Your task to perform on an android device: Search for pizza restaurants on Maps Image 0: 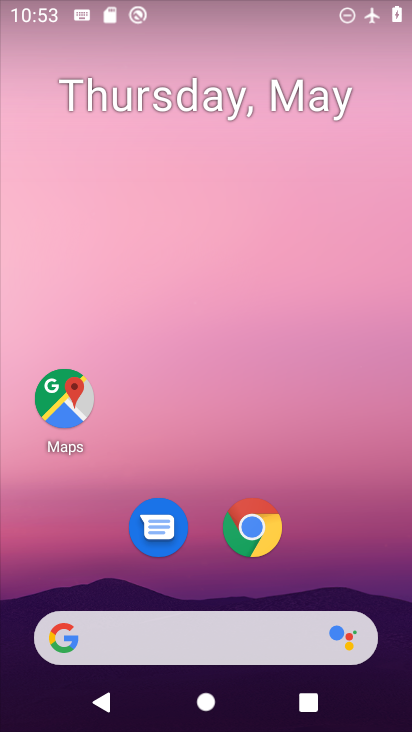
Step 0: click (62, 398)
Your task to perform on an android device: Search for pizza restaurants on Maps Image 1: 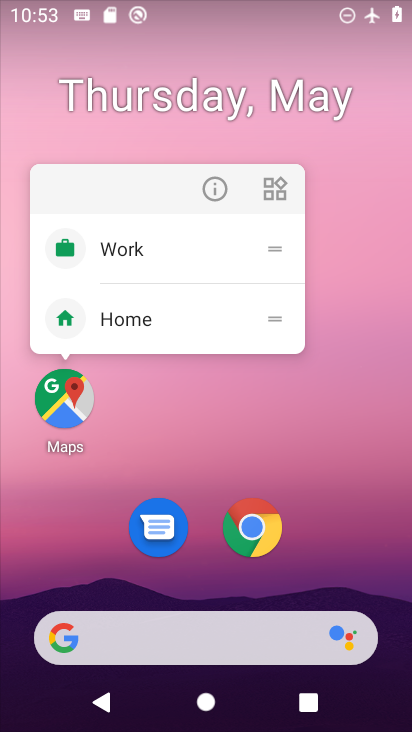
Step 1: click (63, 402)
Your task to perform on an android device: Search for pizza restaurants on Maps Image 2: 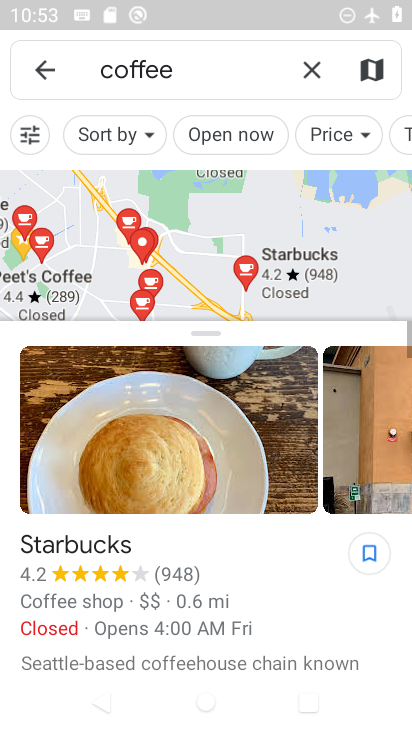
Step 2: click (238, 62)
Your task to perform on an android device: Search for pizza restaurants on Maps Image 3: 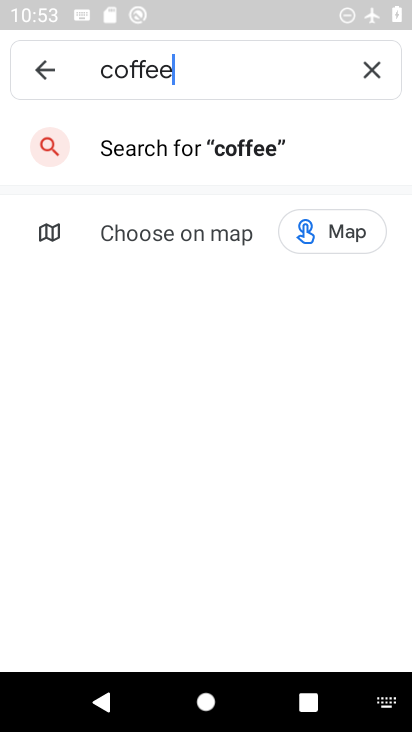
Step 3: click (369, 68)
Your task to perform on an android device: Search for pizza restaurants on Maps Image 4: 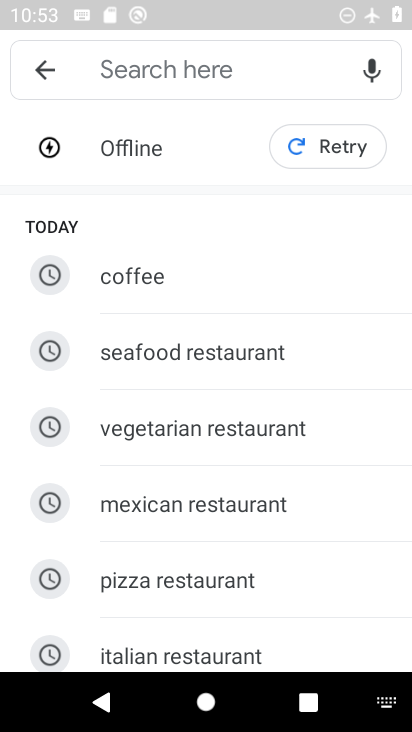
Step 4: type "pizza restaurants"
Your task to perform on an android device: Search for pizza restaurants on Maps Image 5: 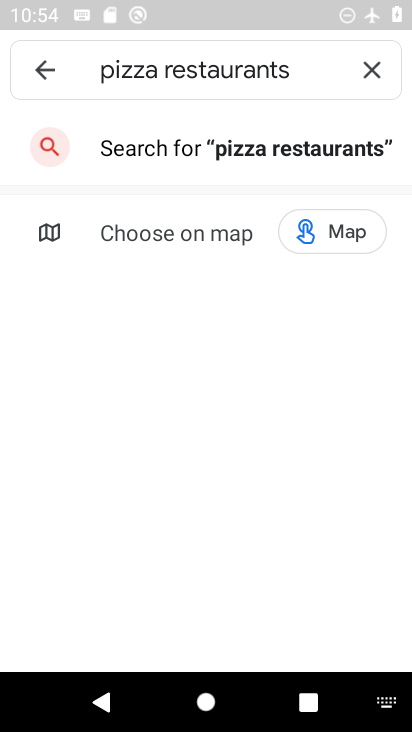
Step 5: press enter
Your task to perform on an android device: Search for pizza restaurants on Maps Image 6: 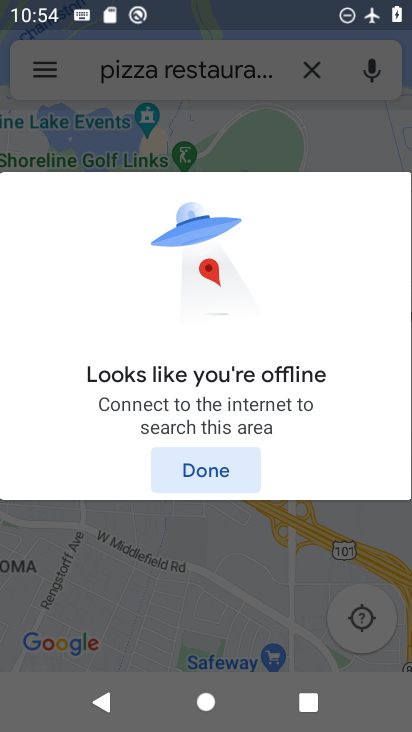
Step 6: task complete